Your task to perform on an android device: Go to Google Image 0: 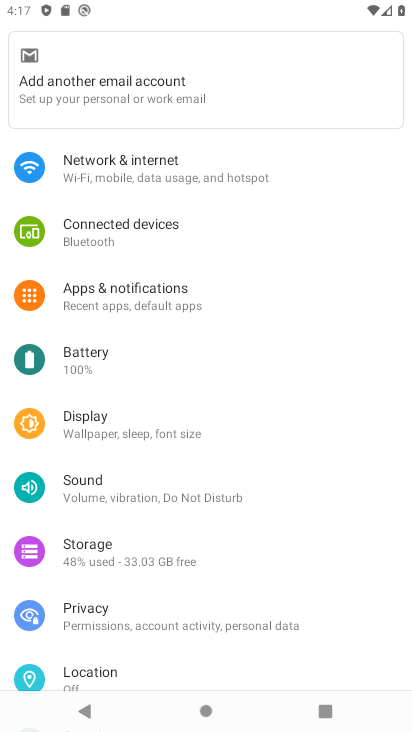
Step 0: press home button
Your task to perform on an android device: Go to Google Image 1: 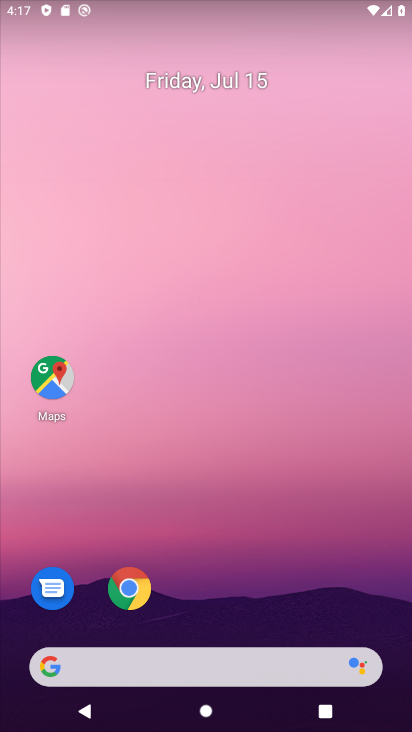
Step 1: click (102, 665)
Your task to perform on an android device: Go to Google Image 2: 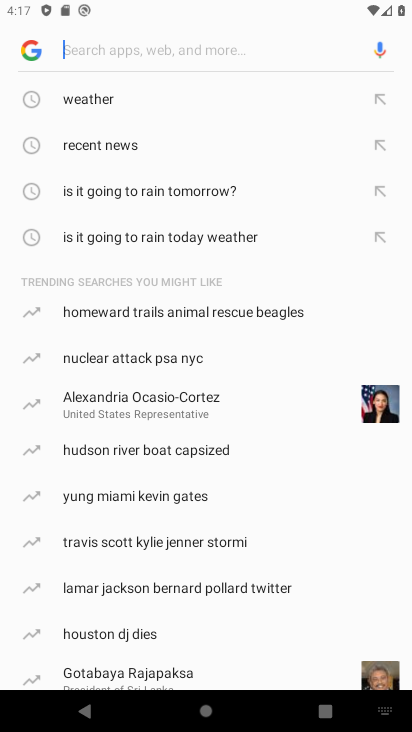
Step 2: task complete